Your task to perform on an android device: Open Wikipedia Image 0: 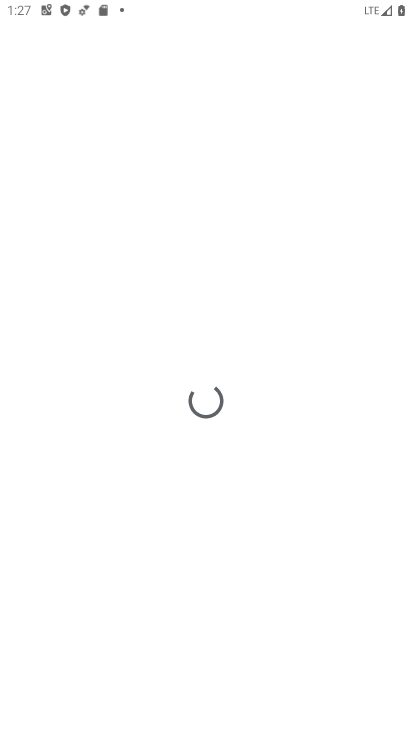
Step 0: press home button
Your task to perform on an android device: Open Wikipedia Image 1: 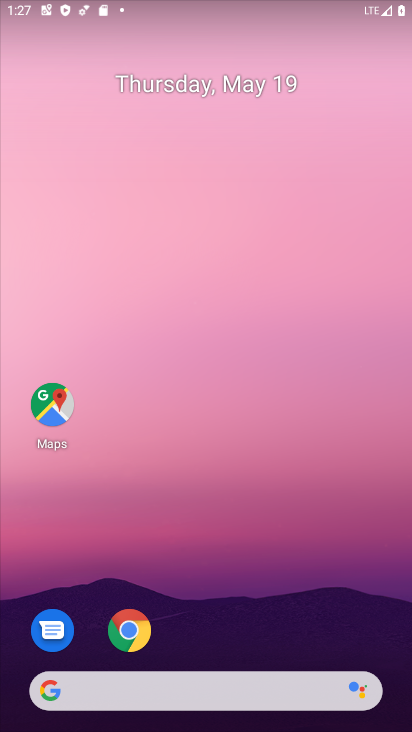
Step 1: click (121, 635)
Your task to perform on an android device: Open Wikipedia Image 2: 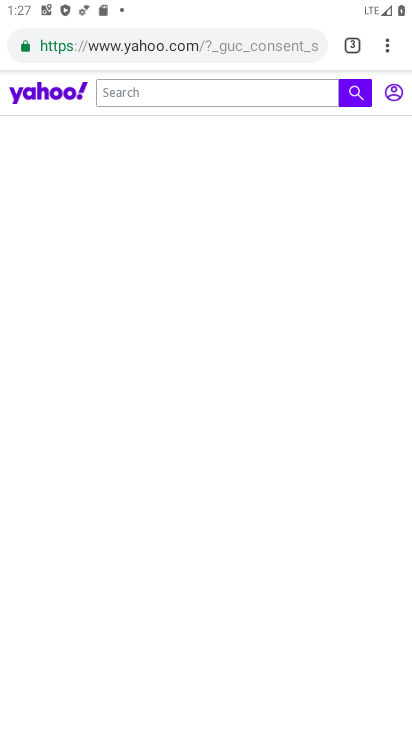
Step 2: click (350, 42)
Your task to perform on an android device: Open Wikipedia Image 3: 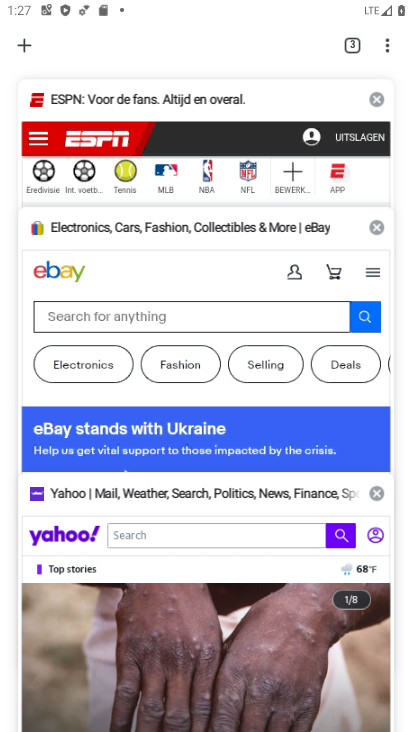
Step 3: click (32, 36)
Your task to perform on an android device: Open Wikipedia Image 4: 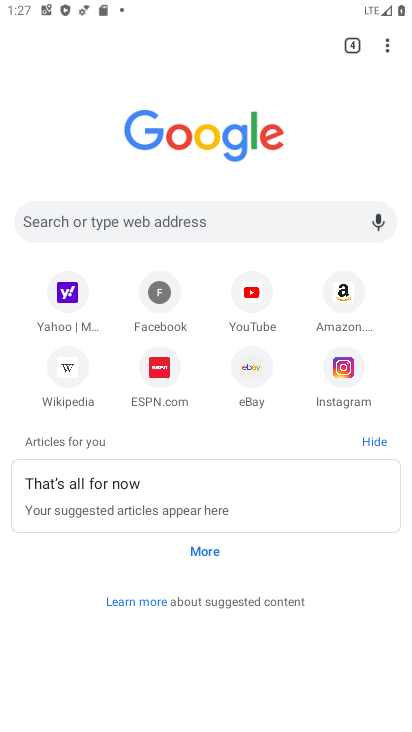
Step 4: click (73, 380)
Your task to perform on an android device: Open Wikipedia Image 5: 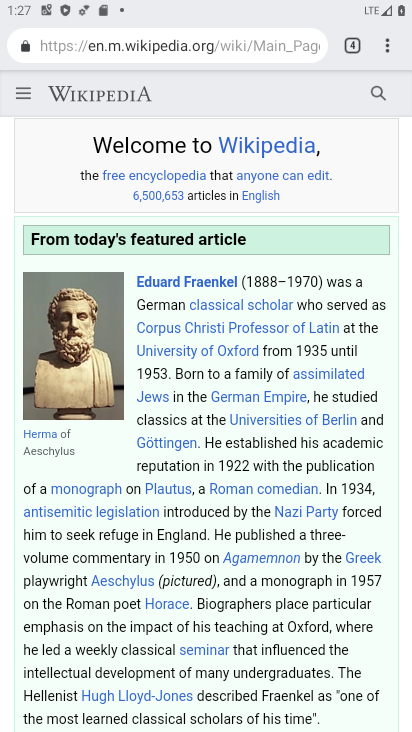
Step 5: task complete